Your task to perform on an android device: open app "Fetch Rewards" (install if not already installed) and enter user name: "Westwood@yahoo.com" and password: "qualifying" Image 0: 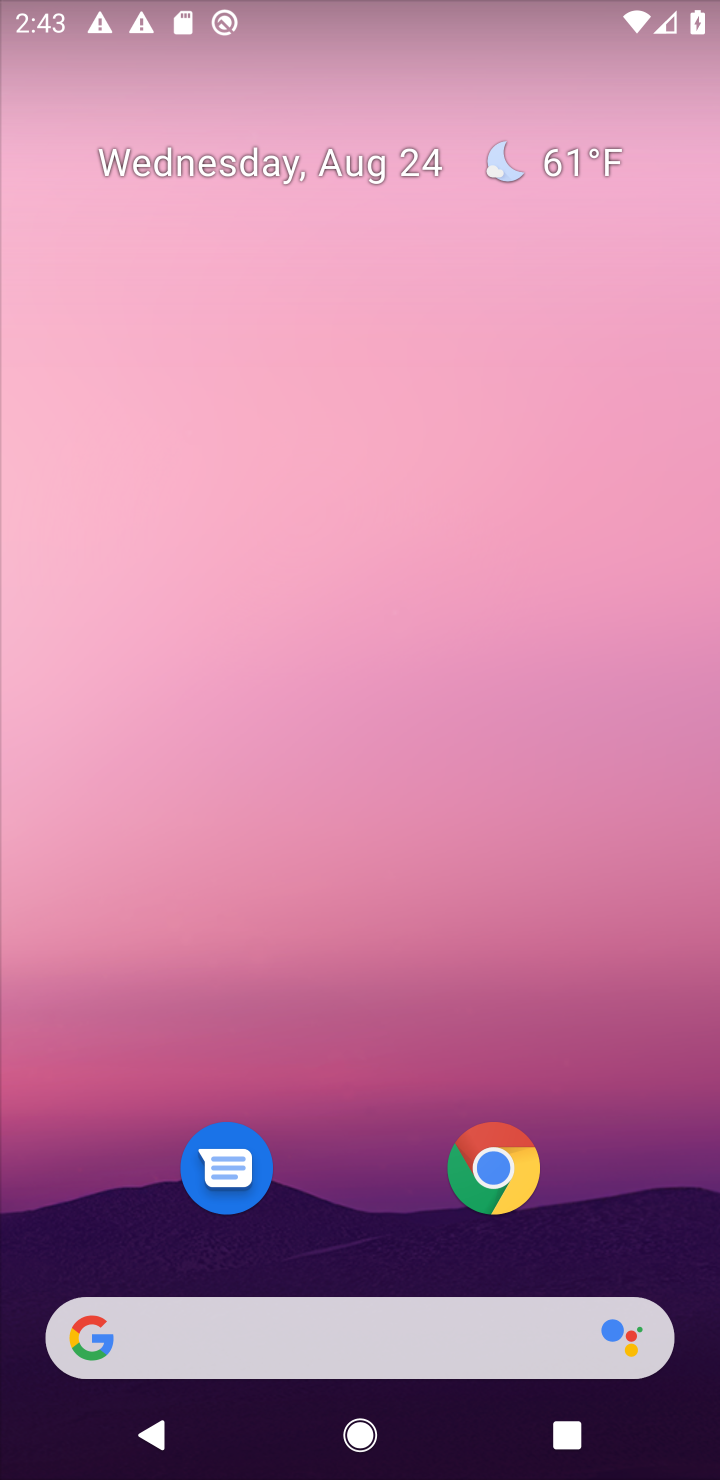
Step 0: drag from (605, 974) to (550, 199)
Your task to perform on an android device: open app "Fetch Rewards" (install if not already installed) and enter user name: "Westwood@yahoo.com" and password: "qualifying" Image 1: 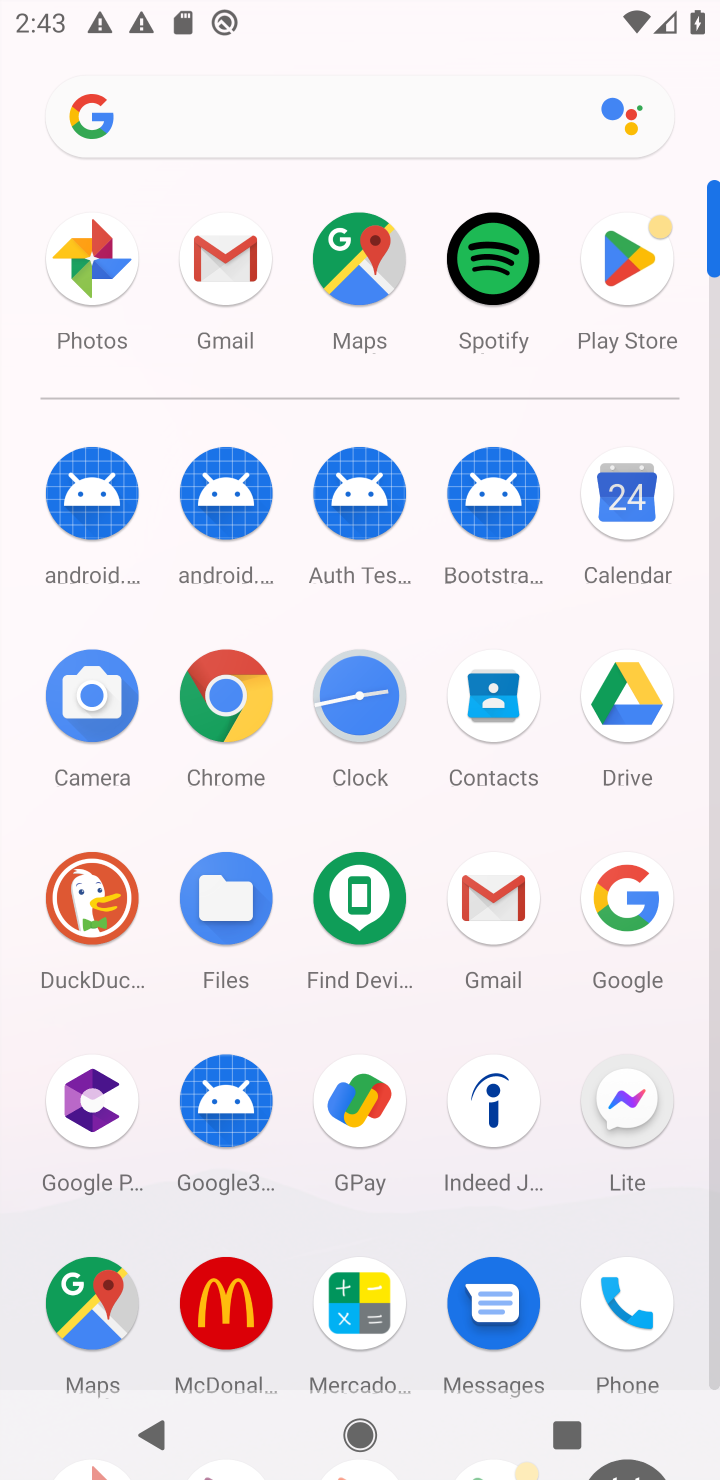
Step 1: click (716, 1237)
Your task to perform on an android device: open app "Fetch Rewards" (install if not already installed) and enter user name: "Westwood@yahoo.com" and password: "qualifying" Image 2: 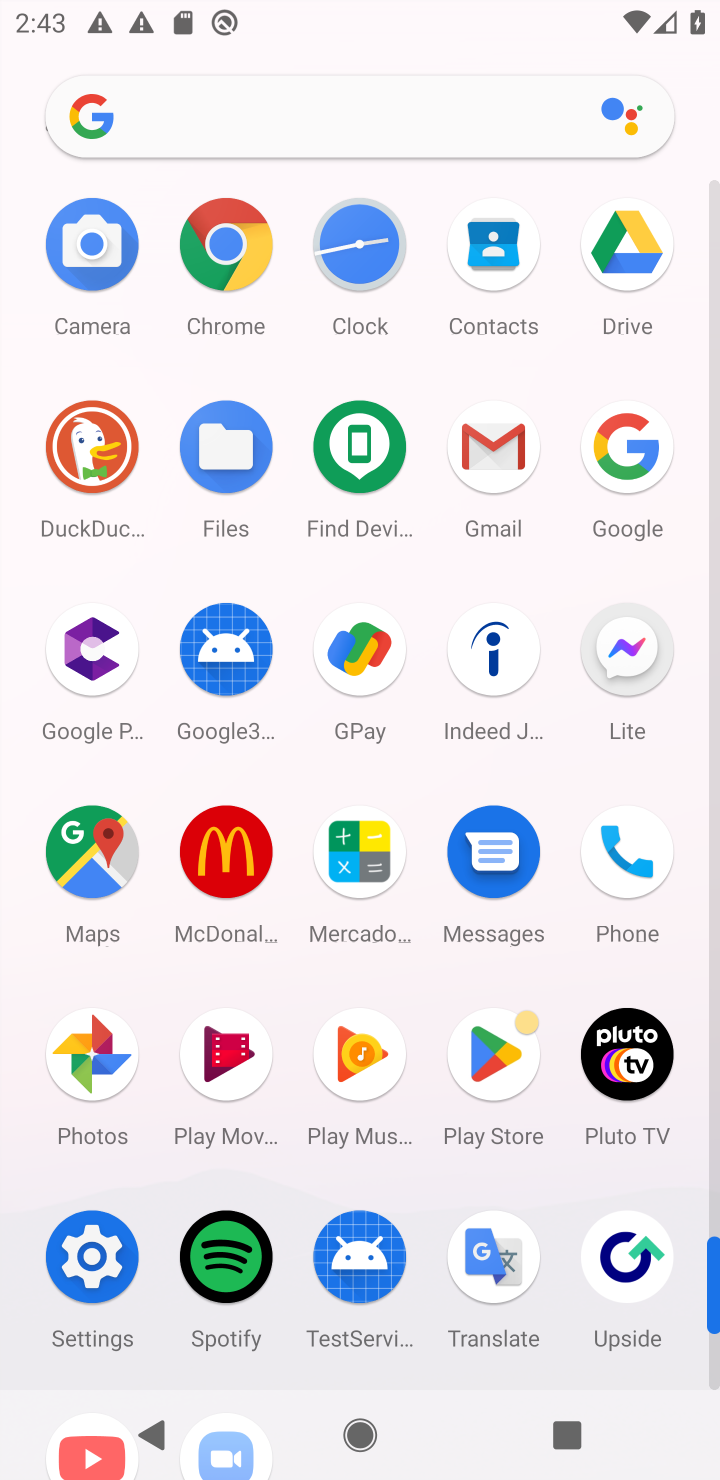
Step 2: click (497, 1056)
Your task to perform on an android device: open app "Fetch Rewards" (install if not already installed) and enter user name: "Westwood@yahoo.com" and password: "qualifying" Image 3: 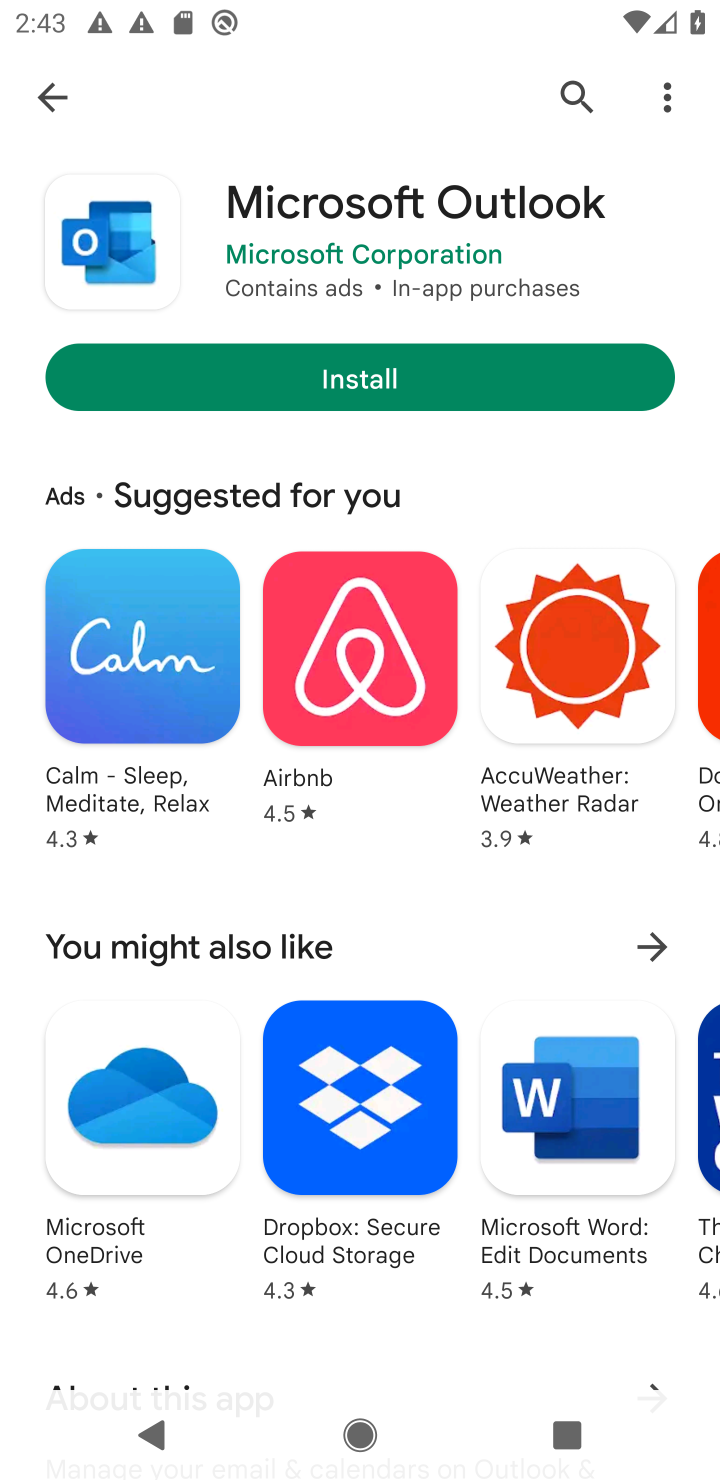
Step 3: click (573, 86)
Your task to perform on an android device: open app "Fetch Rewards" (install if not already installed) and enter user name: "Westwood@yahoo.com" and password: "qualifying" Image 4: 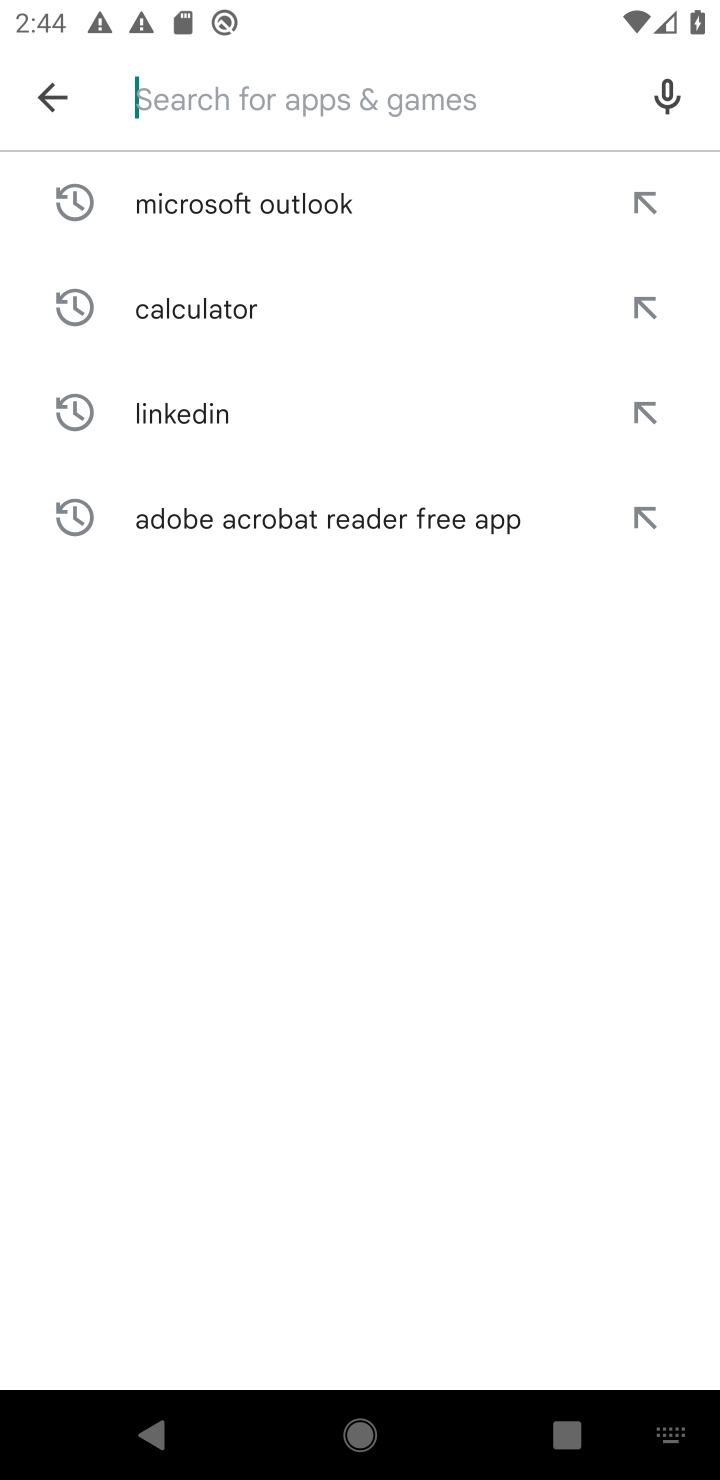
Step 4: type "Fetch Rewards"
Your task to perform on an android device: open app "Fetch Rewards" (install if not already installed) and enter user name: "Westwood@yahoo.com" and password: "qualifying" Image 5: 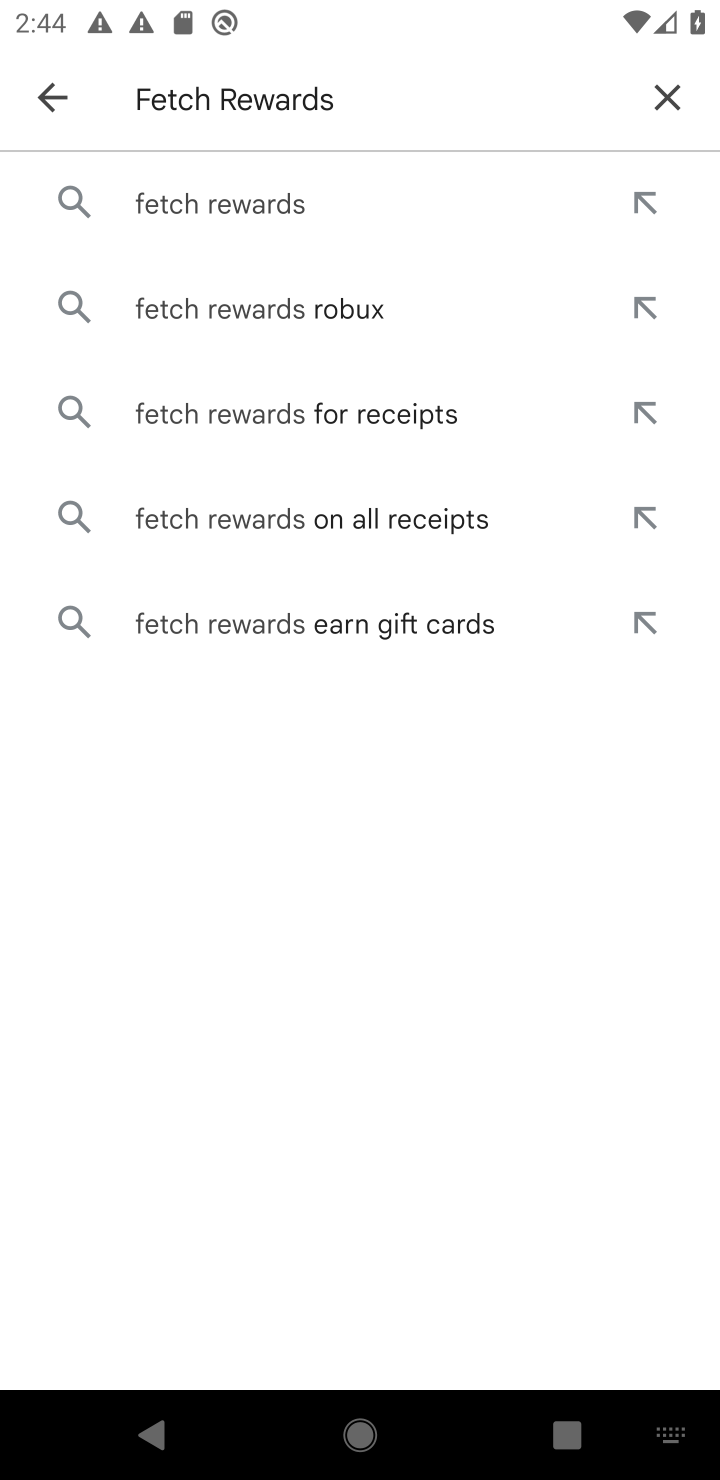
Step 5: click (222, 218)
Your task to perform on an android device: open app "Fetch Rewards" (install if not already installed) and enter user name: "Westwood@yahoo.com" and password: "qualifying" Image 6: 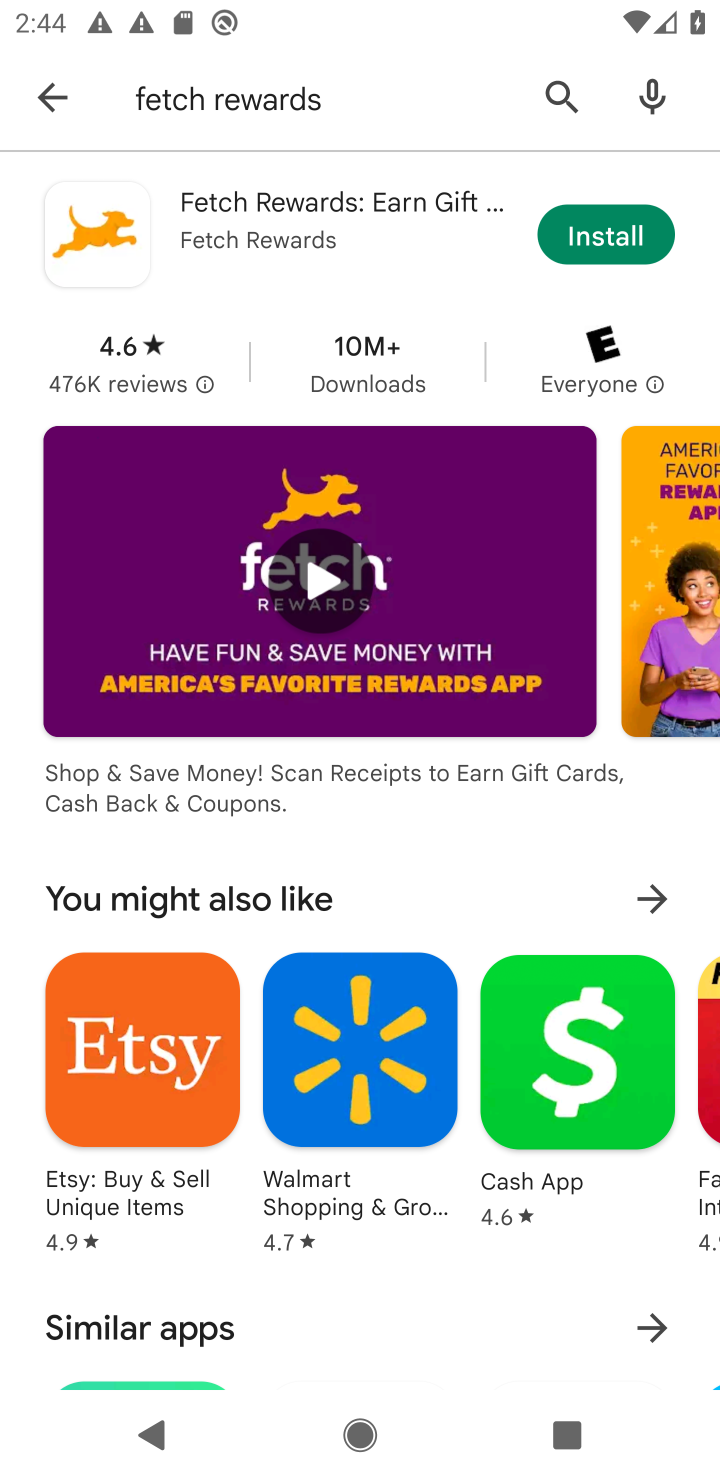
Step 6: click (242, 212)
Your task to perform on an android device: open app "Fetch Rewards" (install if not already installed) and enter user name: "Westwood@yahoo.com" and password: "qualifying" Image 7: 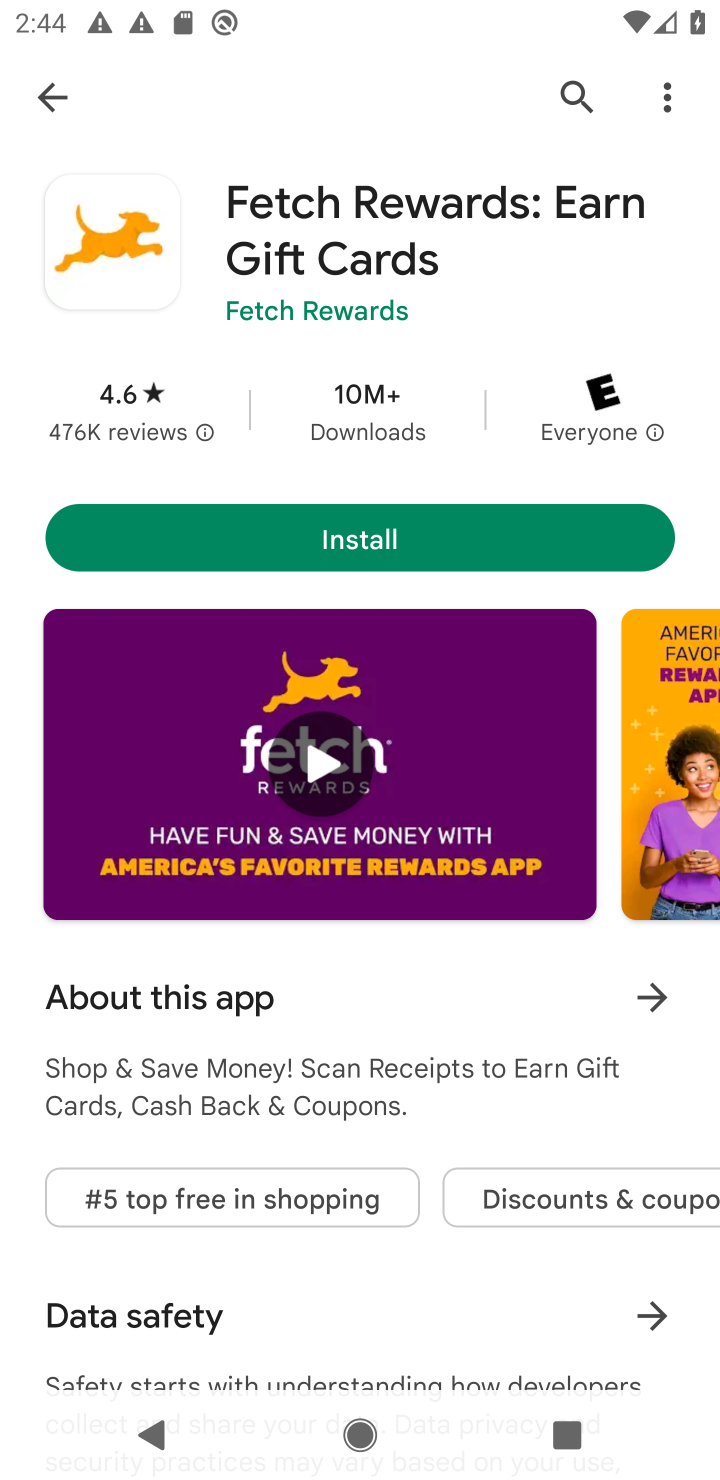
Step 7: click (363, 536)
Your task to perform on an android device: open app "Fetch Rewards" (install if not already installed) and enter user name: "Westwood@yahoo.com" and password: "qualifying" Image 8: 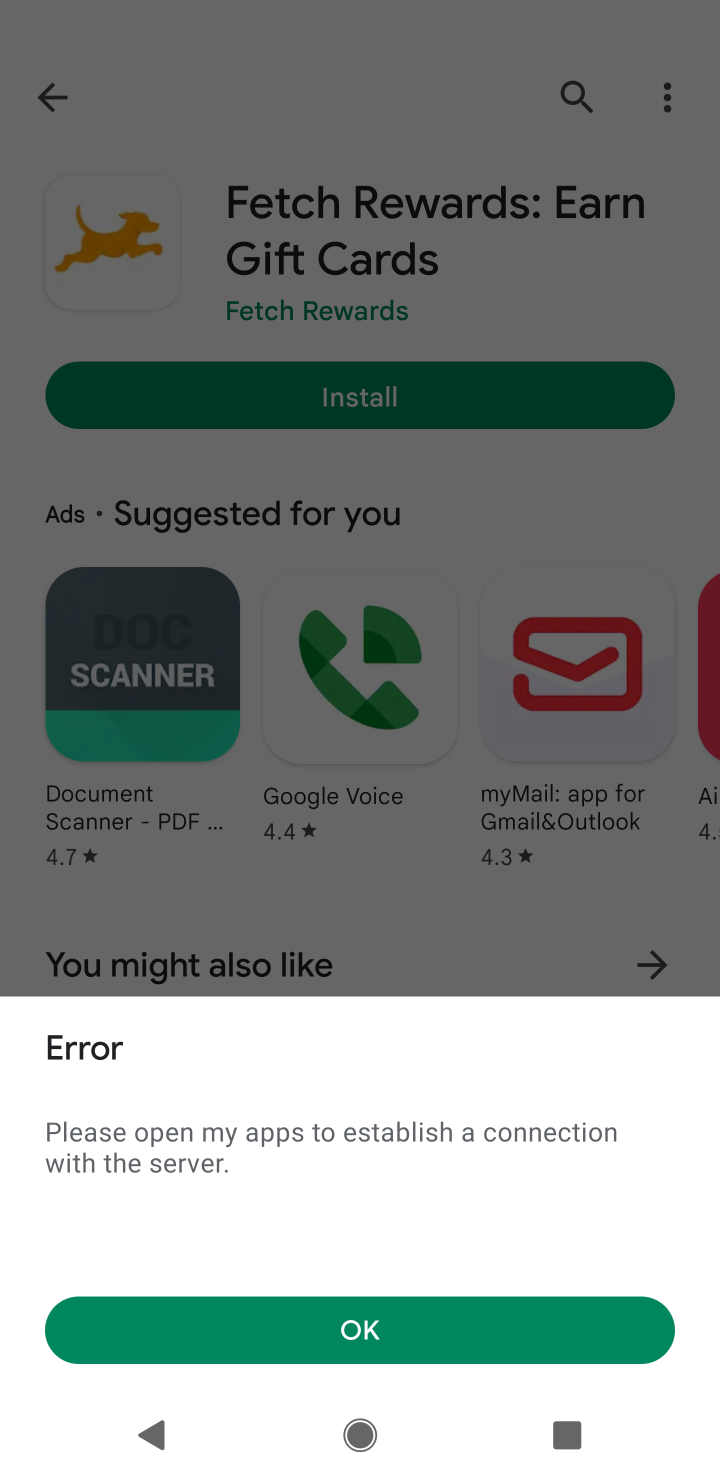
Step 8: click (373, 1334)
Your task to perform on an android device: open app "Fetch Rewards" (install if not already installed) and enter user name: "Westwood@yahoo.com" and password: "qualifying" Image 9: 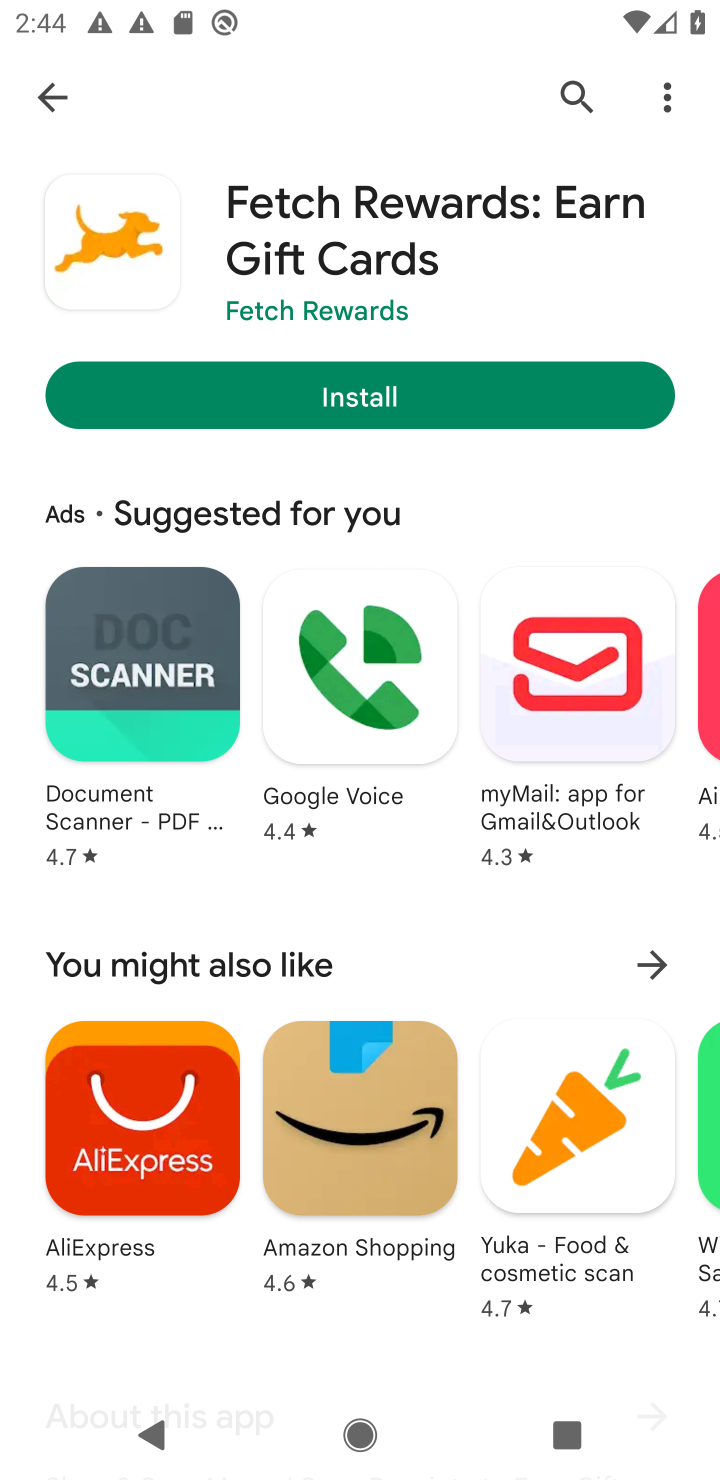
Step 9: task complete